Your task to perform on an android device: Open sound settings Image 0: 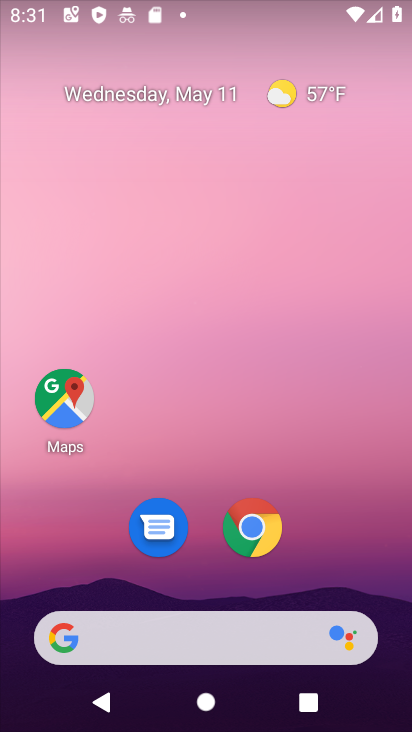
Step 0: drag from (353, 468) to (317, 30)
Your task to perform on an android device: Open sound settings Image 1: 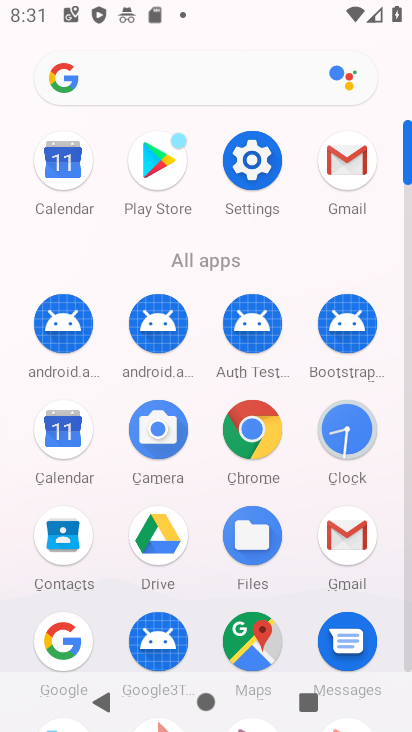
Step 1: click (243, 184)
Your task to perform on an android device: Open sound settings Image 2: 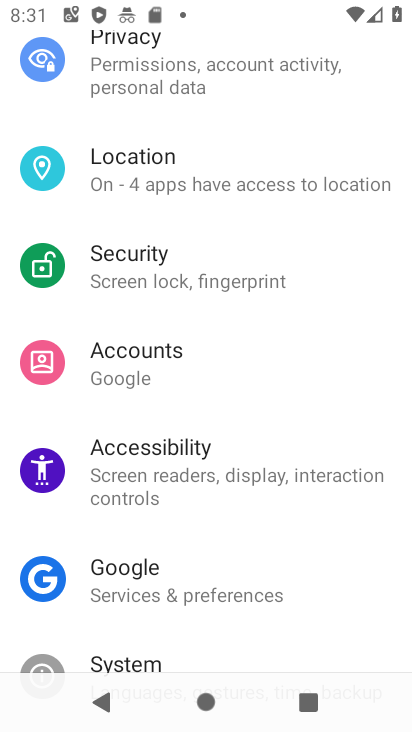
Step 2: drag from (263, 168) to (284, 561)
Your task to perform on an android device: Open sound settings Image 3: 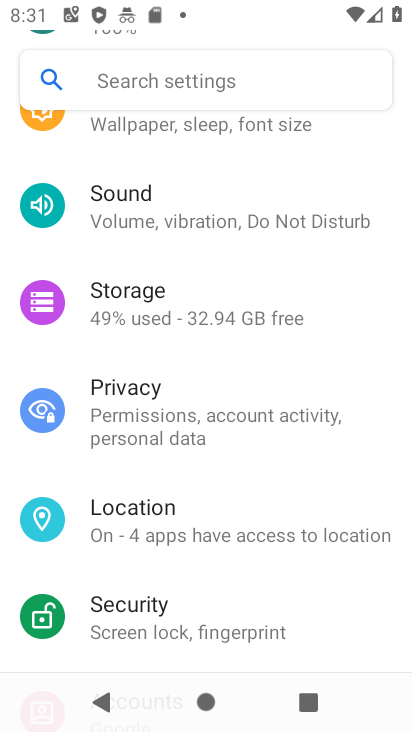
Step 3: click (151, 221)
Your task to perform on an android device: Open sound settings Image 4: 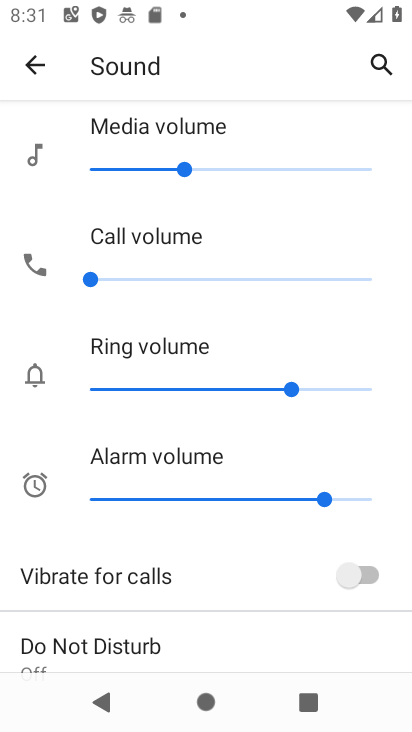
Step 4: task complete